Your task to perform on an android device: toggle data saver in the chrome app Image 0: 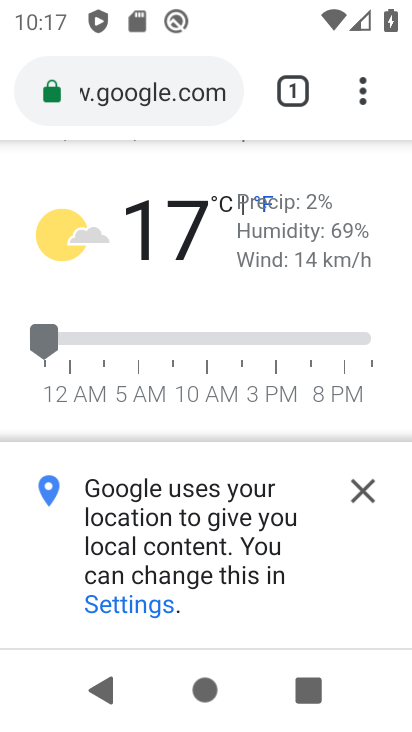
Step 0: drag from (366, 88) to (145, 509)
Your task to perform on an android device: toggle data saver in the chrome app Image 1: 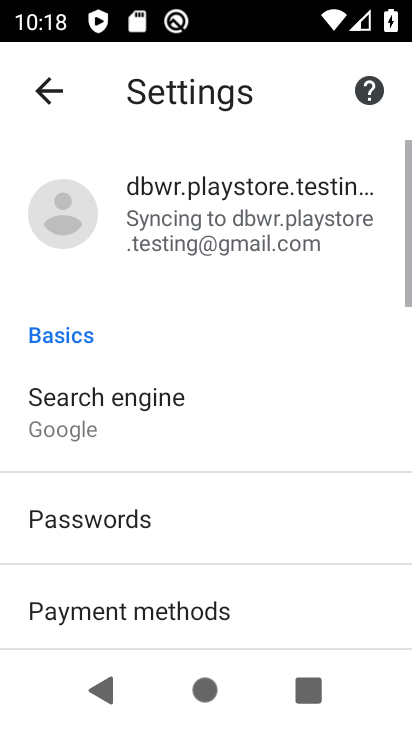
Step 1: drag from (245, 530) to (232, 169)
Your task to perform on an android device: toggle data saver in the chrome app Image 2: 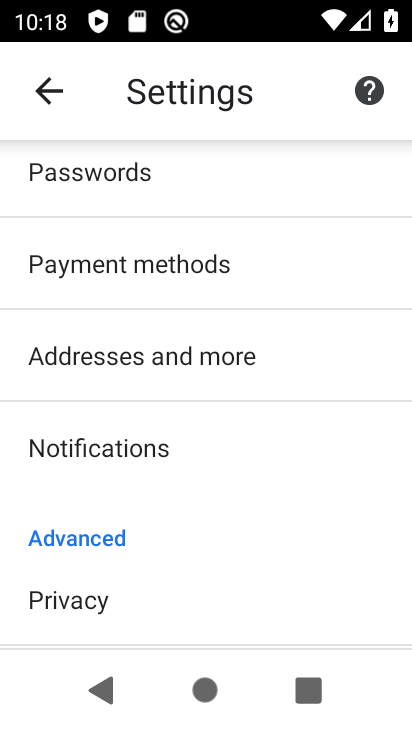
Step 2: drag from (311, 553) to (285, 101)
Your task to perform on an android device: toggle data saver in the chrome app Image 3: 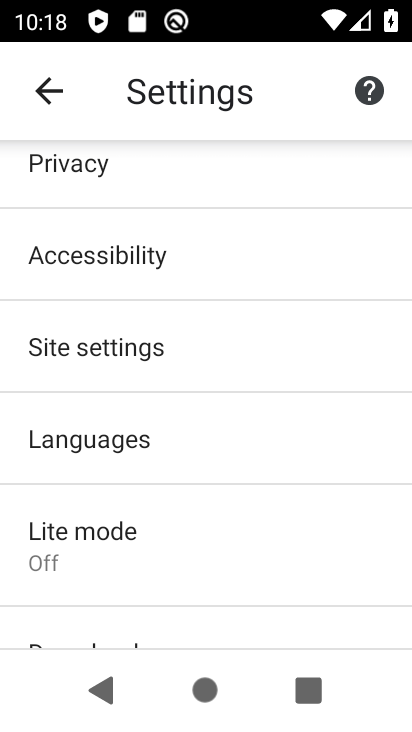
Step 3: click (110, 537)
Your task to perform on an android device: toggle data saver in the chrome app Image 4: 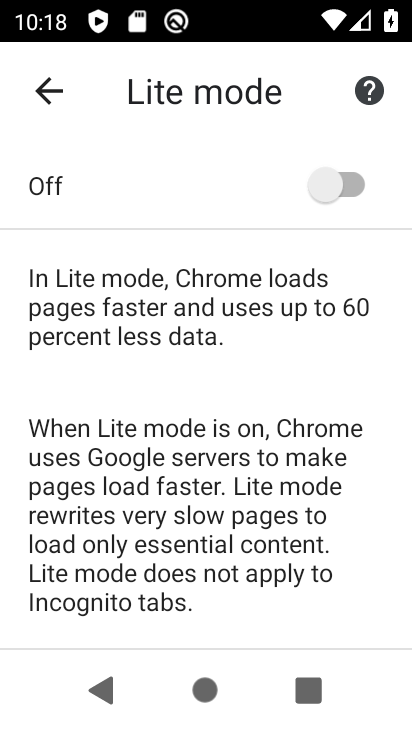
Step 4: click (256, 188)
Your task to perform on an android device: toggle data saver in the chrome app Image 5: 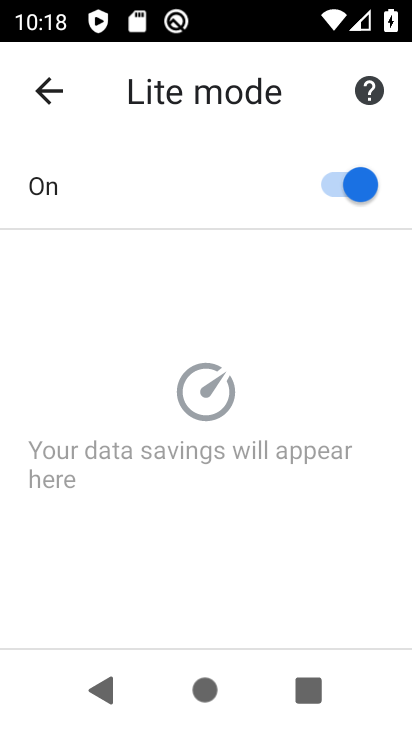
Step 5: task complete